Your task to perform on an android device: star an email in the gmail app Image 0: 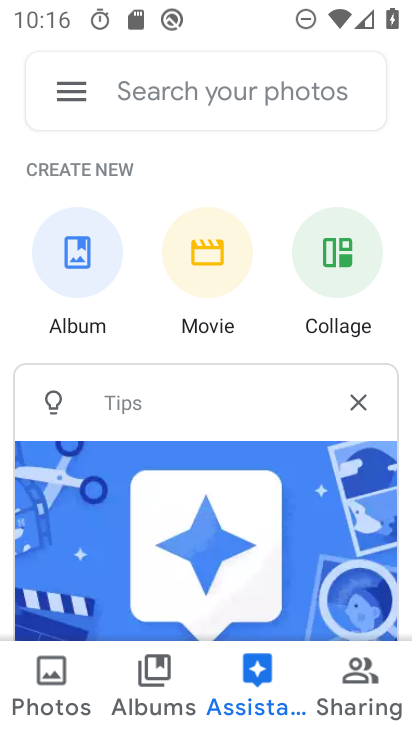
Step 0: press home button
Your task to perform on an android device: star an email in the gmail app Image 1: 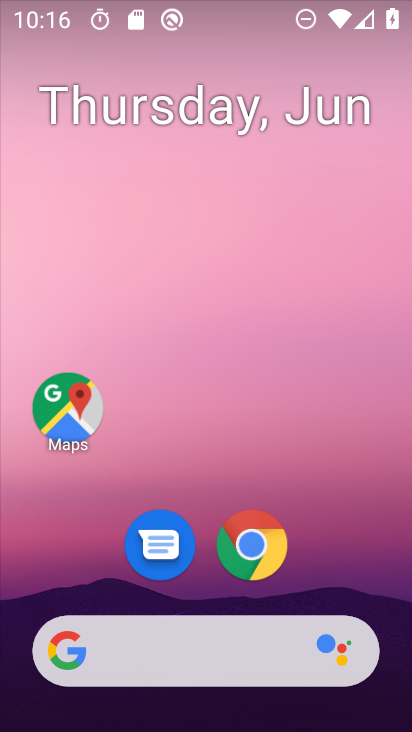
Step 1: drag from (191, 554) to (270, 20)
Your task to perform on an android device: star an email in the gmail app Image 2: 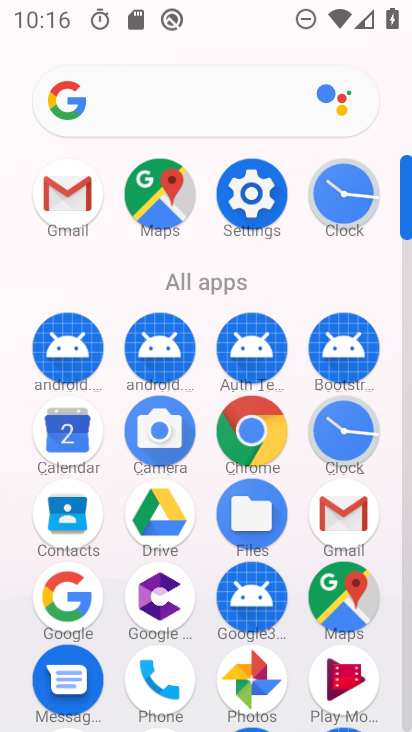
Step 2: click (348, 513)
Your task to perform on an android device: star an email in the gmail app Image 3: 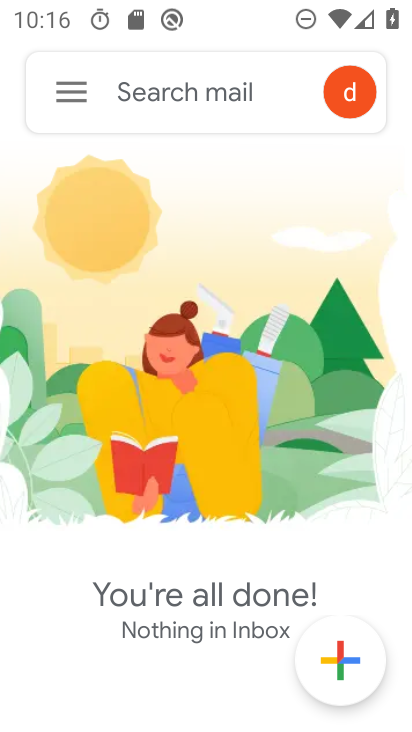
Step 3: click (73, 93)
Your task to perform on an android device: star an email in the gmail app Image 4: 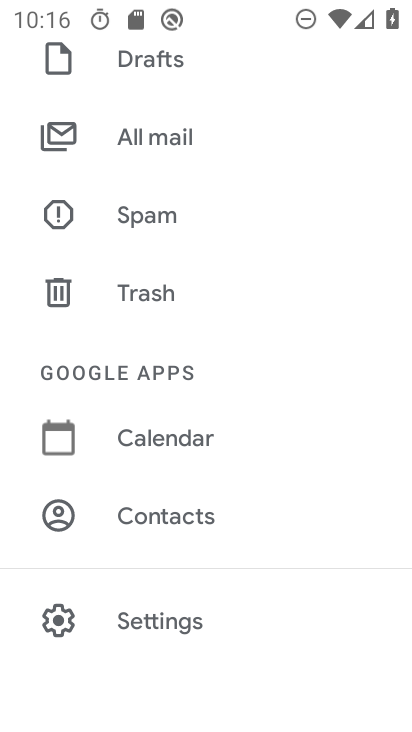
Step 4: click (156, 147)
Your task to perform on an android device: star an email in the gmail app Image 5: 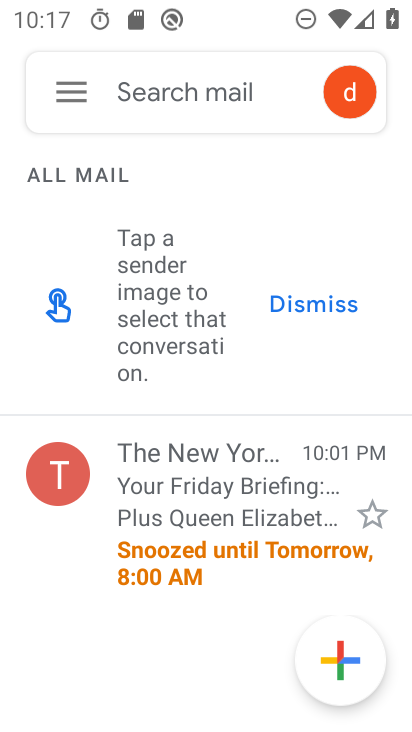
Step 5: click (384, 512)
Your task to perform on an android device: star an email in the gmail app Image 6: 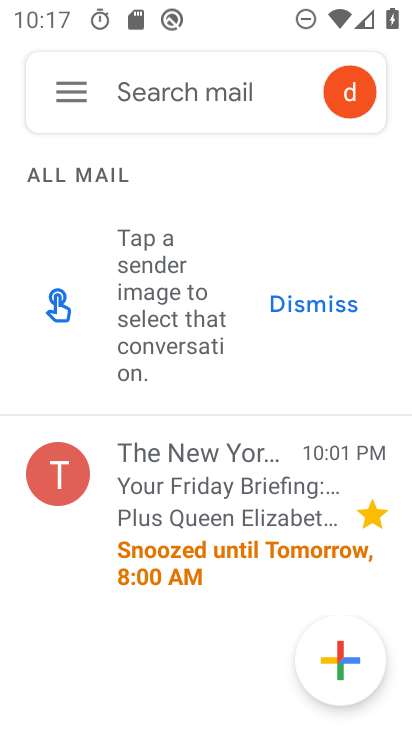
Step 6: task complete